Your task to perform on an android device: Go to Google Image 0: 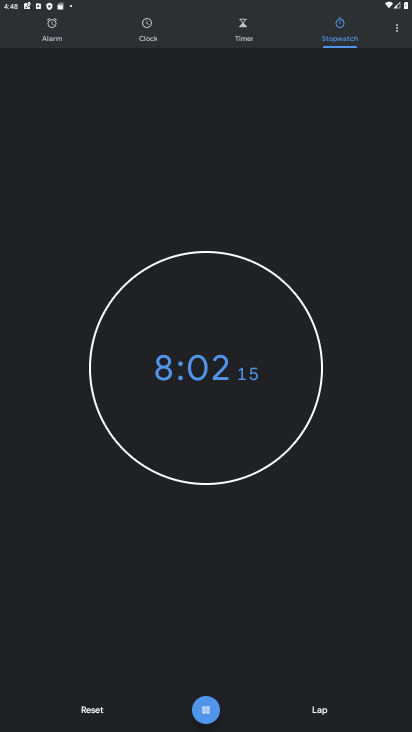
Step 0: press home button
Your task to perform on an android device: Go to Google Image 1: 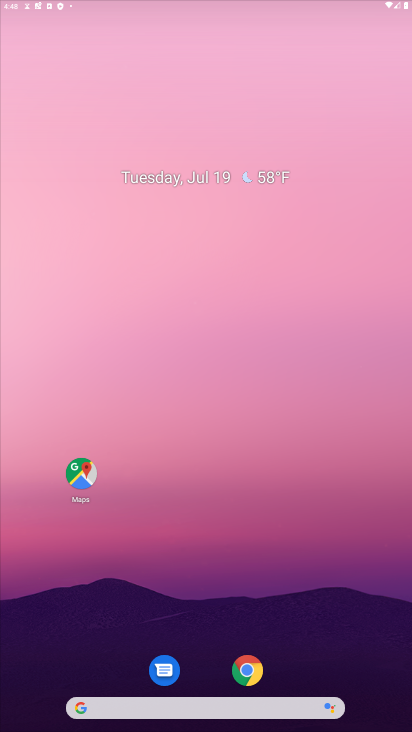
Step 1: drag from (154, 694) to (244, 10)
Your task to perform on an android device: Go to Google Image 2: 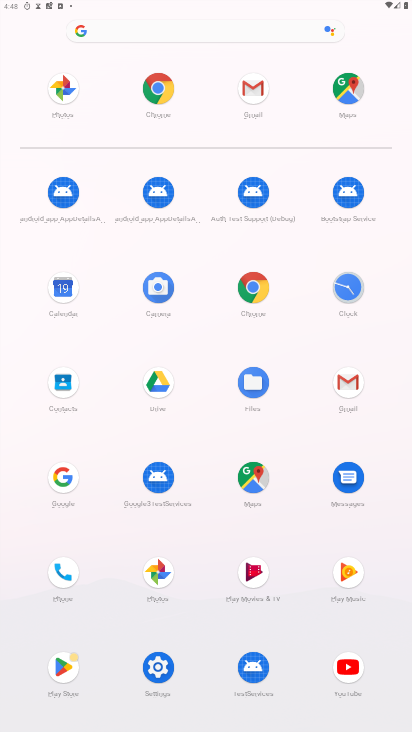
Step 2: click (252, 278)
Your task to perform on an android device: Go to Google Image 3: 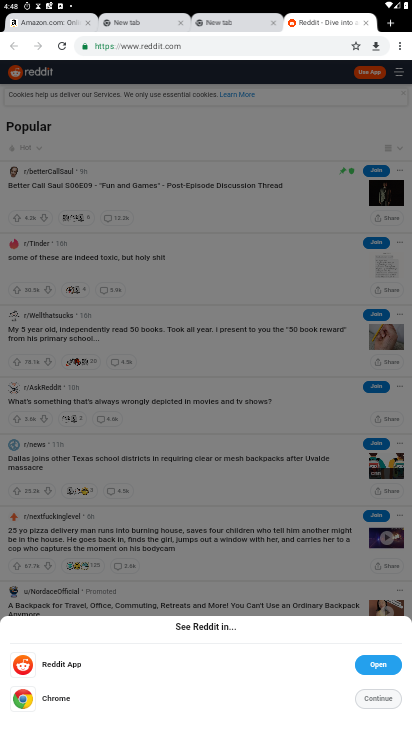
Step 3: task complete